Your task to perform on an android device: turn off location Image 0: 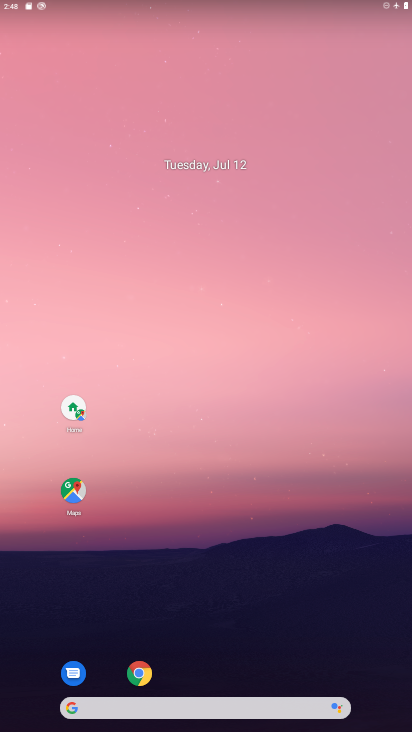
Step 0: drag from (245, 629) to (203, 339)
Your task to perform on an android device: turn off location Image 1: 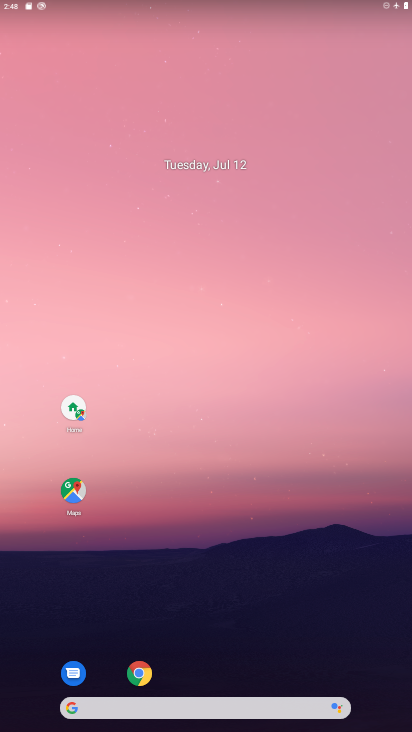
Step 1: drag from (205, 621) to (199, 255)
Your task to perform on an android device: turn off location Image 2: 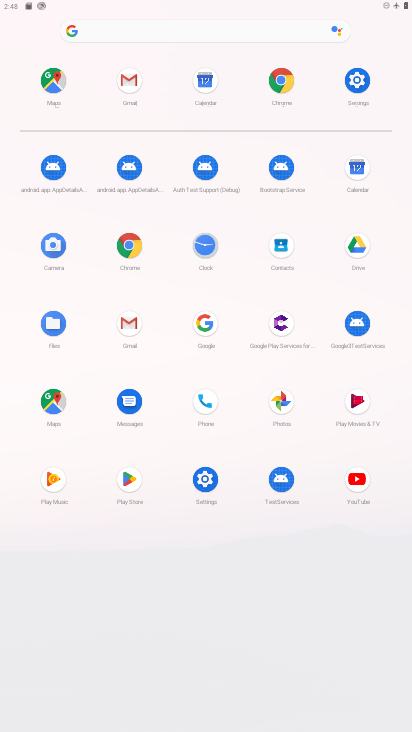
Step 2: click (350, 75)
Your task to perform on an android device: turn off location Image 3: 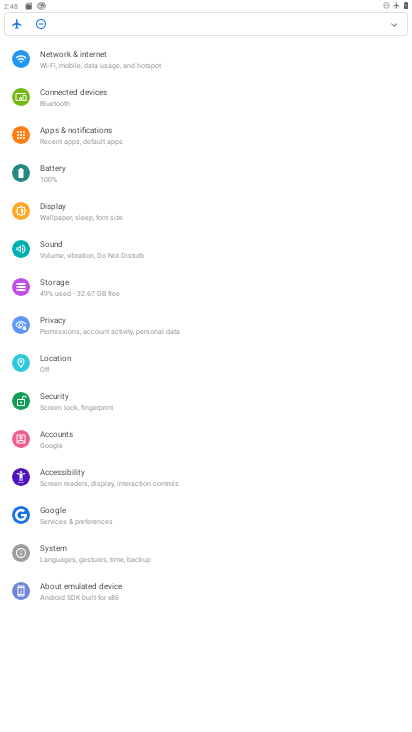
Step 3: click (69, 357)
Your task to perform on an android device: turn off location Image 4: 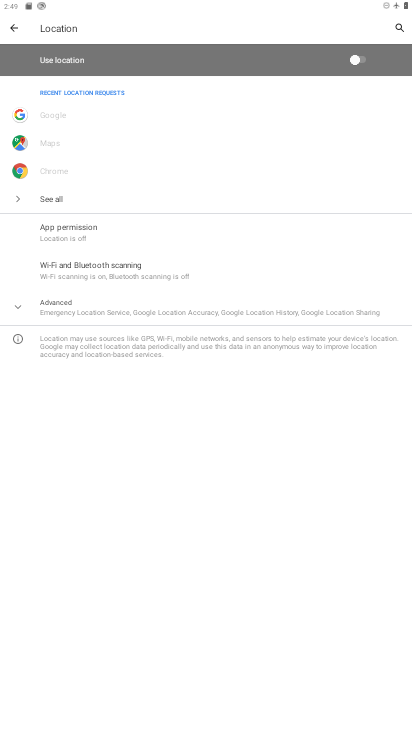
Step 4: task complete